Your task to perform on an android device: Open the calendar and show me this week's events Image 0: 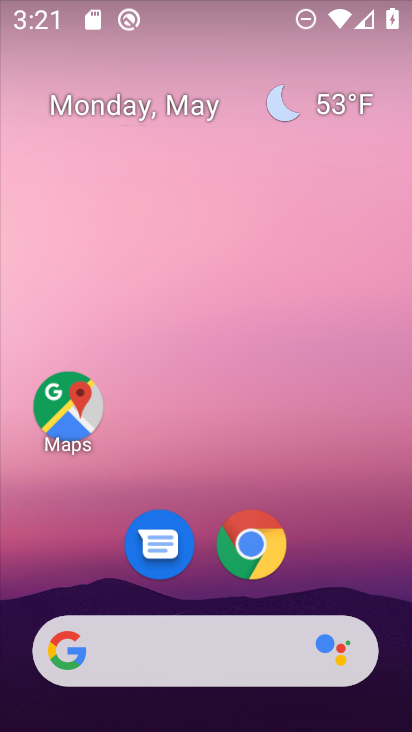
Step 0: drag from (162, 728) to (211, 58)
Your task to perform on an android device: Open the calendar and show me this week's events Image 1: 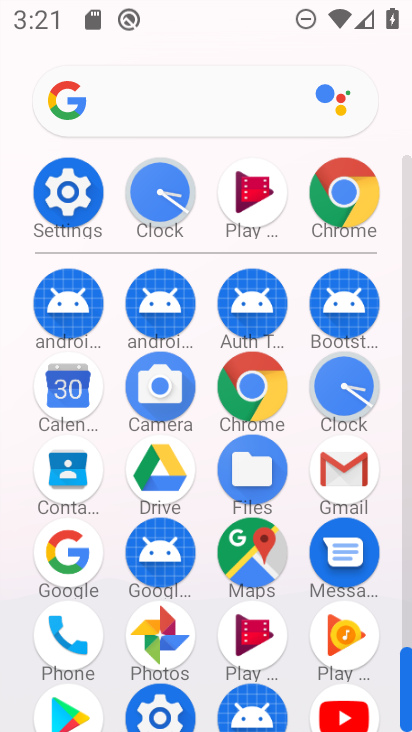
Step 1: click (75, 397)
Your task to perform on an android device: Open the calendar and show me this week's events Image 2: 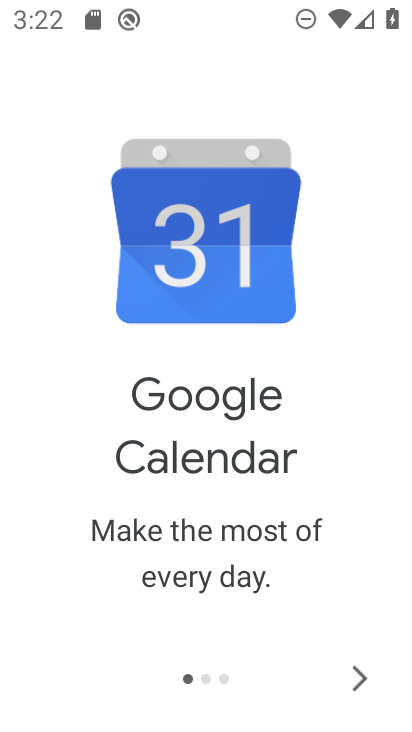
Step 2: click (348, 685)
Your task to perform on an android device: Open the calendar and show me this week's events Image 3: 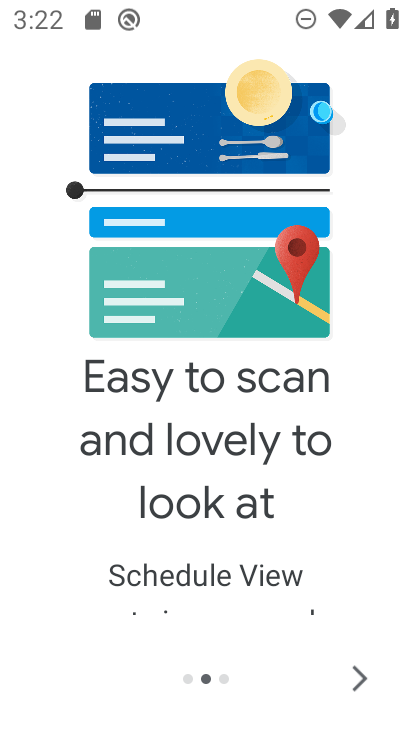
Step 3: click (347, 684)
Your task to perform on an android device: Open the calendar and show me this week's events Image 4: 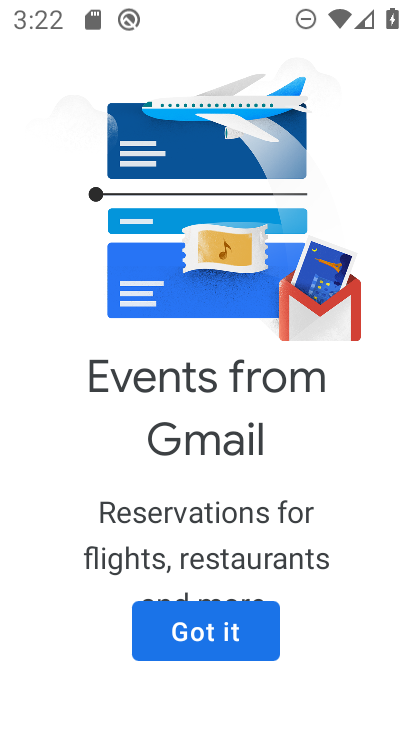
Step 4: click (245, 650)
Your task to perform on an android device: Open the calendar and show me this week's events Image 5: 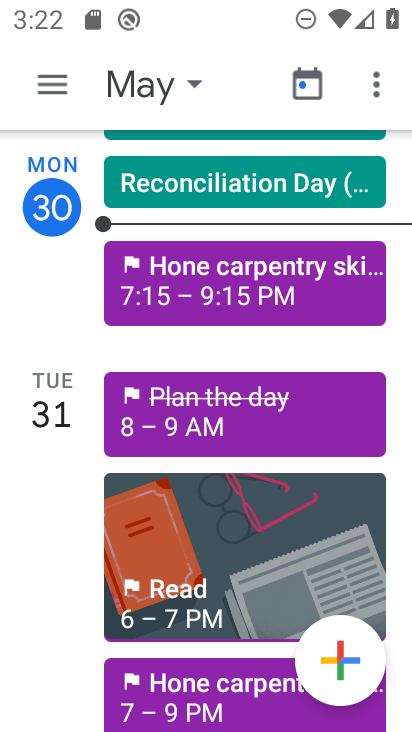
Step 5: click (66, 93)
Your task to perform on an android device: Open the calendar and show me this week's events Image 6: 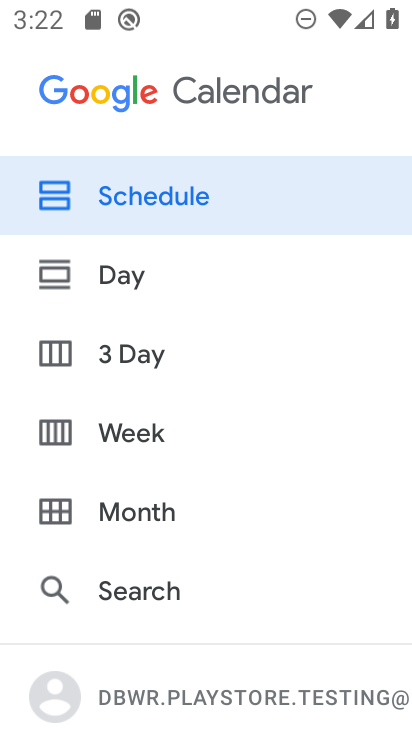
Step 6: click (157, 440)
Your task to perform on an android device: Open the calendar and show me this week's events Image 7: 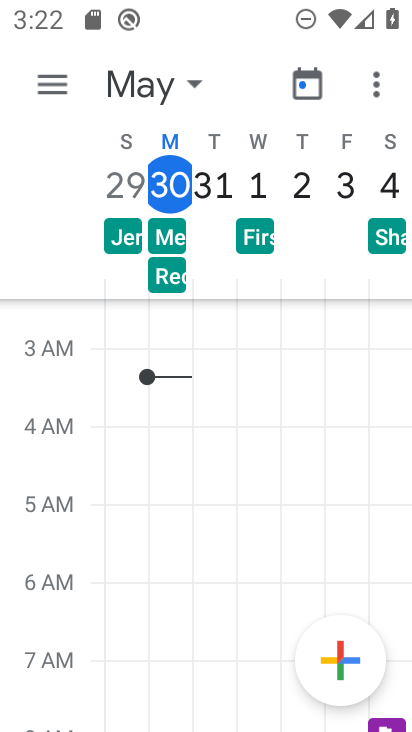
Step 7: click (64, 85)
Your task to perform on an android device: Open the calendar and show me this week's events Image 8: 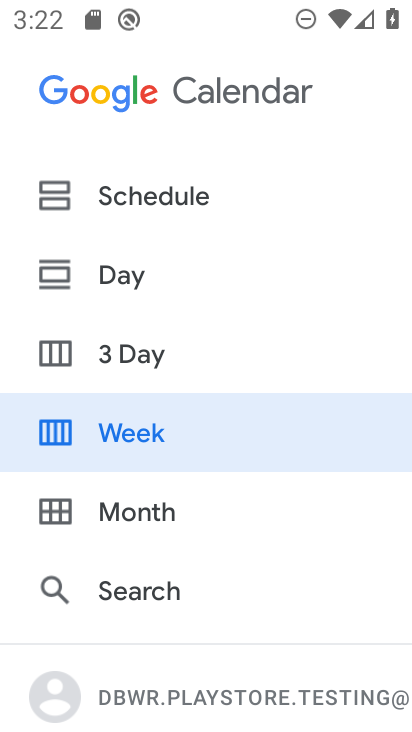
Step 8: drag from (178, 648) to (176, 119)
Your task to perform on an android device: Open the calendar and show me this week's events Image 9: 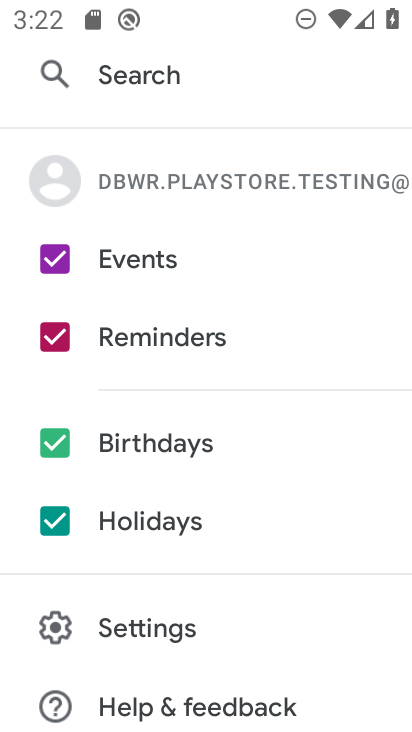
Step 9: click (59, 522)
Your task to perform on an android device: Open the calendar and show me this week's events Image 10: 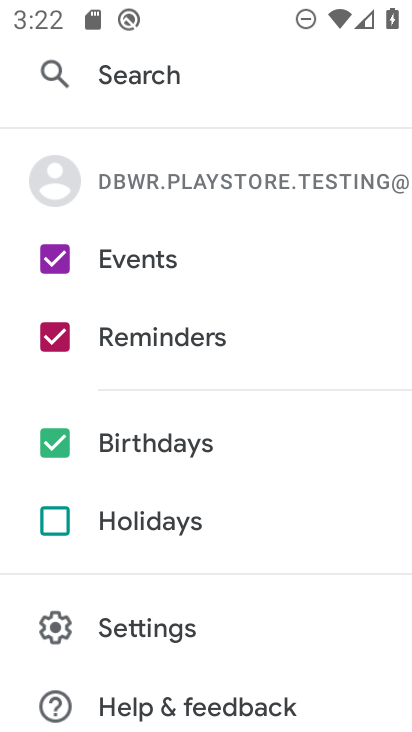
Step 10: click (60, 452)
Your task to perform on an android device: Open the calendar and show me this week's events Image 11: 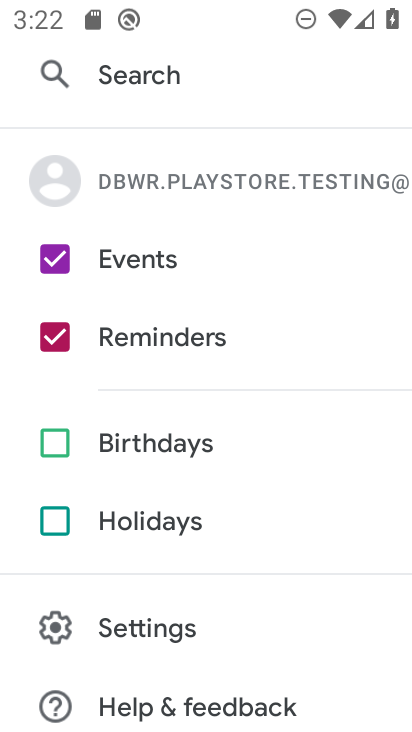
Step 11: click (50, 340)
Your task to perform on an android device: Open the calendar and show me this week's events Image 12: 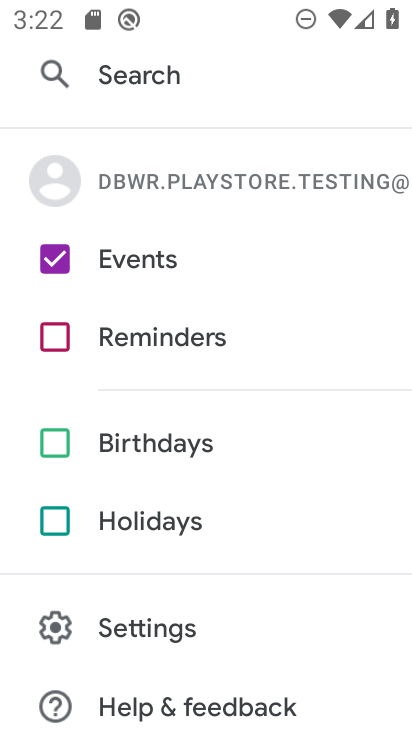
Step 12: drag from (234, 181) to (234, 686)
Your task to perform on an android device: Open the calendar and show me this week's events Image 13: 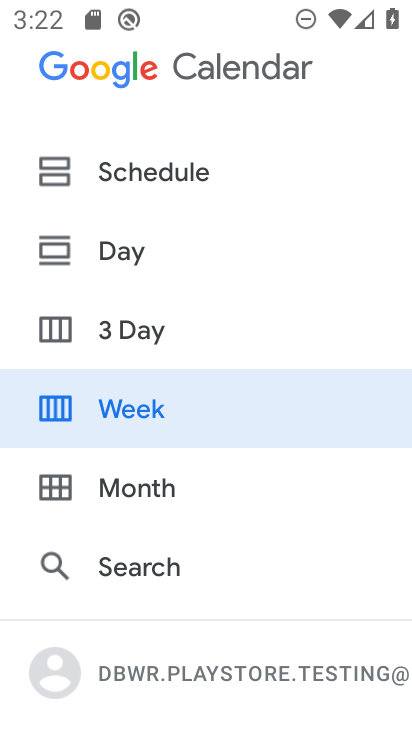
Step 13: click (136, 404)
Your task to perform on an android device: Open the calendar and show me this week's events Image 14: 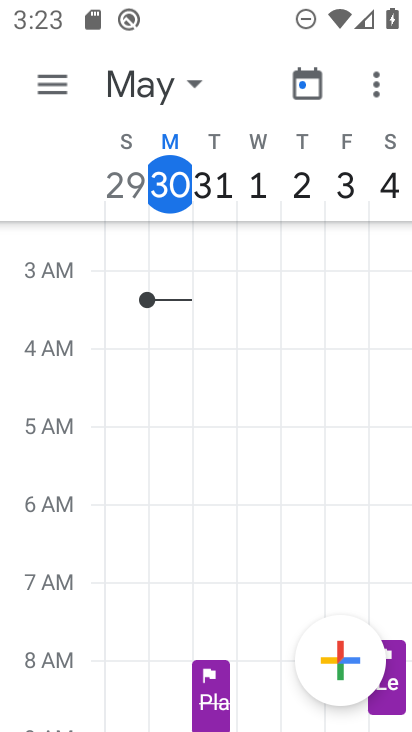
Step 14: task complete